Your task to perform on an android device: Open battery settings Image 0: 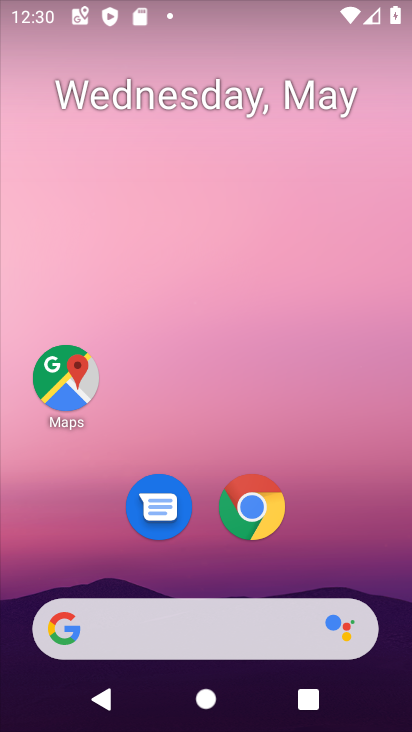
Step 0: drag from (313, 541) to (311, 170)
Your task to perform on an android device: Open battery settings Image 1: 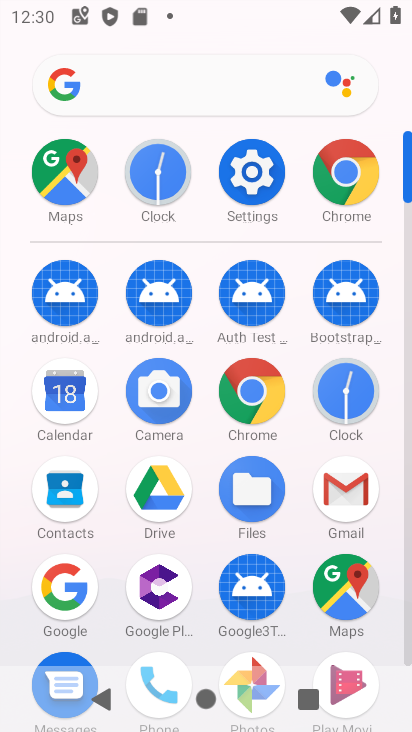
Step 1: click (264, 179)
Your task to perform on an android device: Open battery settings Image 2: 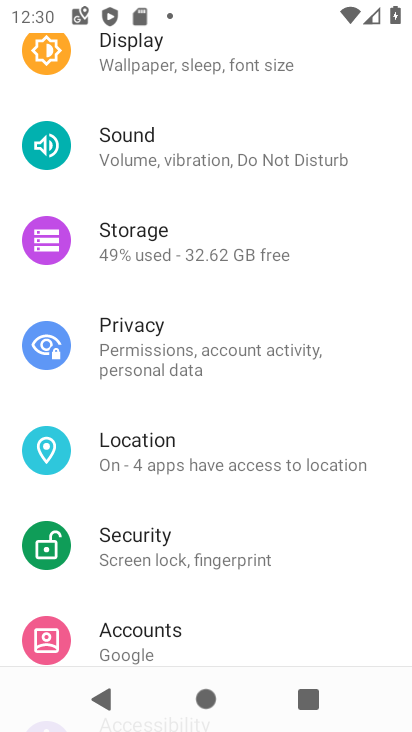
Step 2: drag from (176, 117) to (151, 482)
Your task to perform on an android device: Open battery settings Image 3: 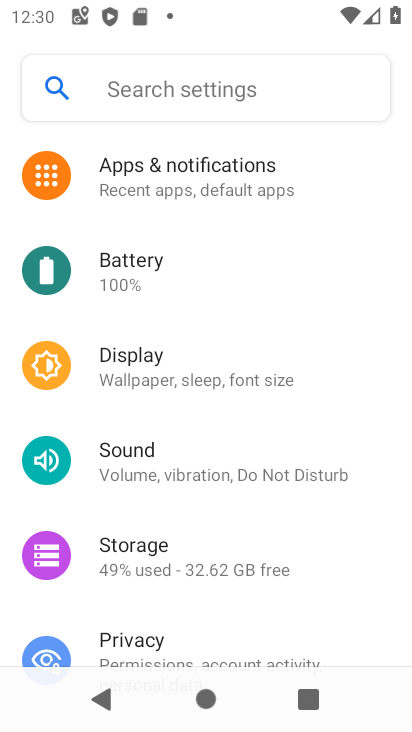
Step 3: click (196, 256)
Your task to perform on an android device: Open battery settings Image 4: 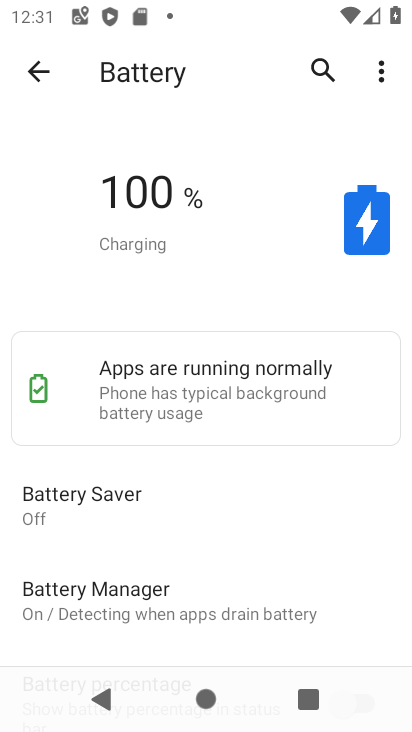
Step 4: task complete